Your task to perform on an android device: move a message to another label in the gmail app Image 0: 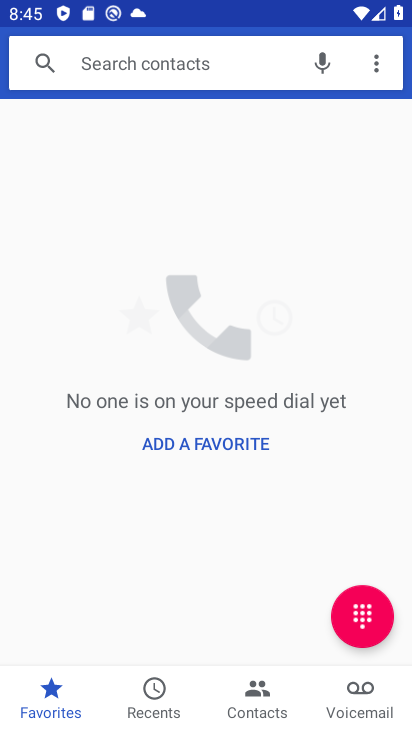
Step 0: press home button
Your task to perform on an android device: move a message to another label in the gmail app Image 1: 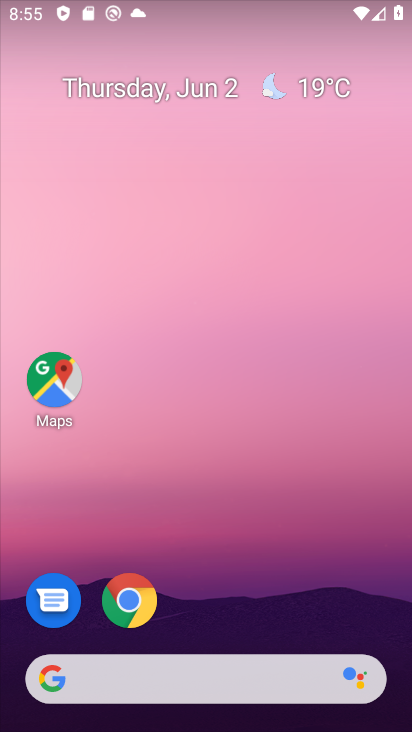
Step 1: drag from (207, 604) to (182, 87)
Your task to perform on an android device: move a message to another label in the gmail app Image 2: 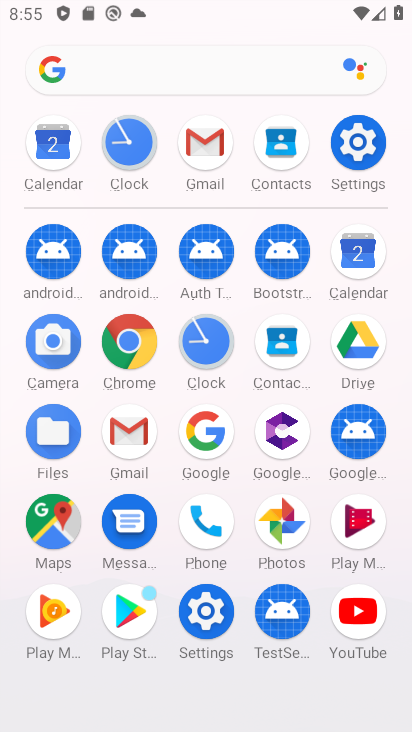
Step 2: click (140, 410)
Your task to perform on an android device: move a message to another label in the gmail app Image 3: 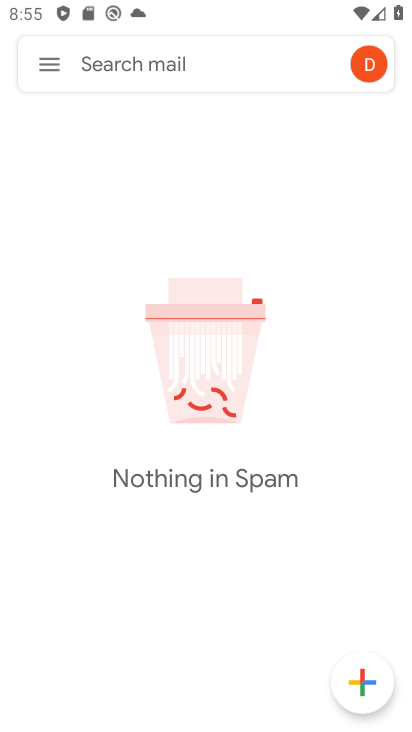
Step 3: task complete